Your task to perform on an android device: set the timer Image 0: 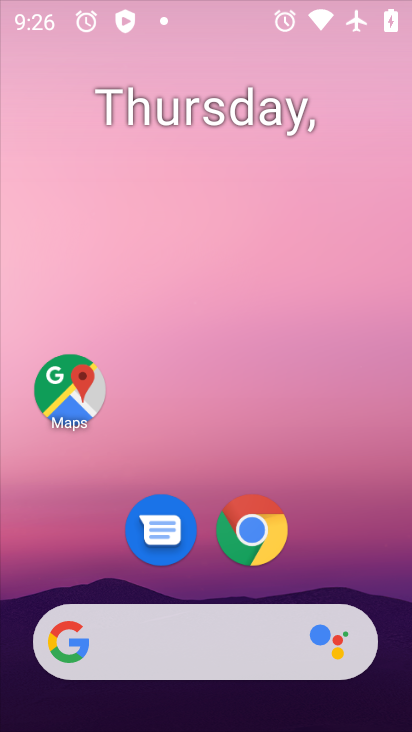
Step 0: drag from (319, 568) to (259, 47)
Your task to perform on an android device: set the timer Image 1: 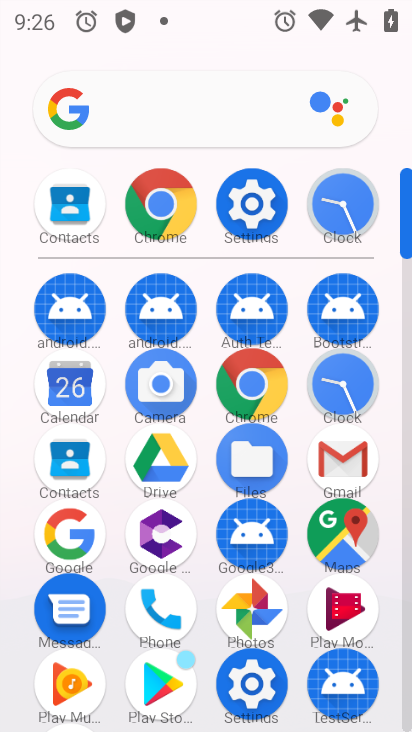
Step 1: drag from (16, 590) to (16, 275)
Your task to perform on an android device: set the timer Image 2: 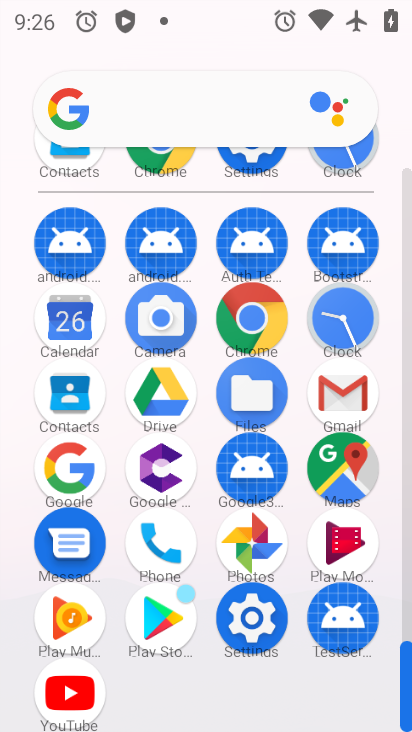
Step 2: click (344, 316)
Your task to perform on an android device: set the timer Image 3: 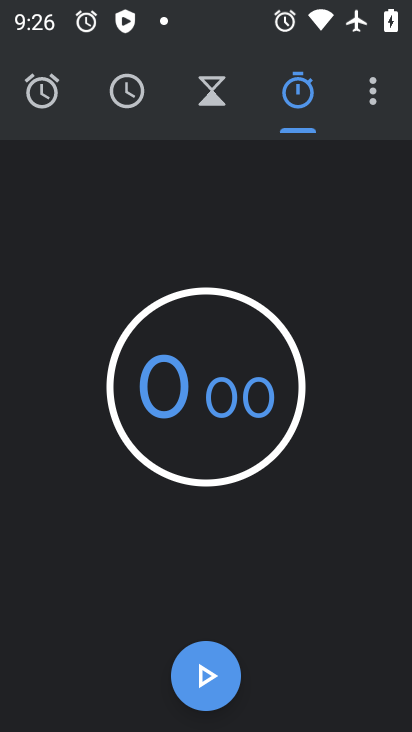
Step 3: click (58, 88)
Your task to perform on an android device: set the timer Image 4: 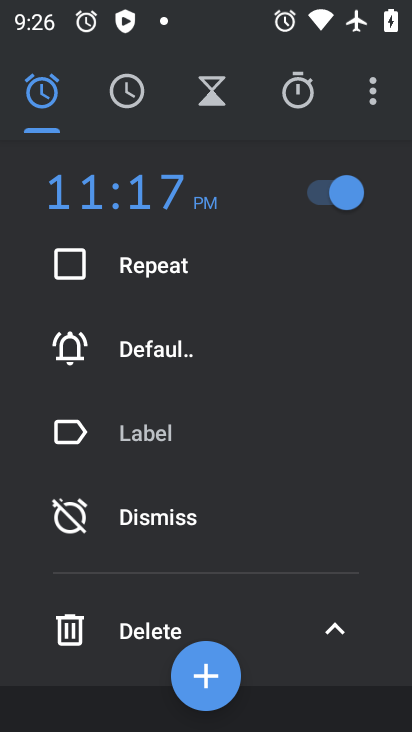
Step 4: click (215, 98)
Your task to perform on an android device: set the timer Image 5: 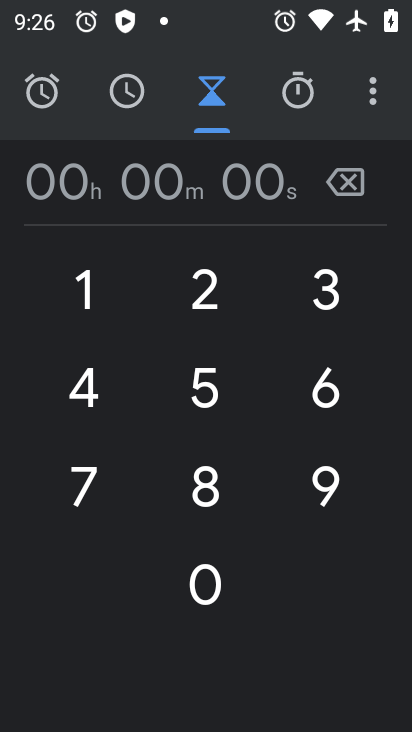
Step 5: click (209, 275)
Your task to perform on an android device: set the timer Image 6: 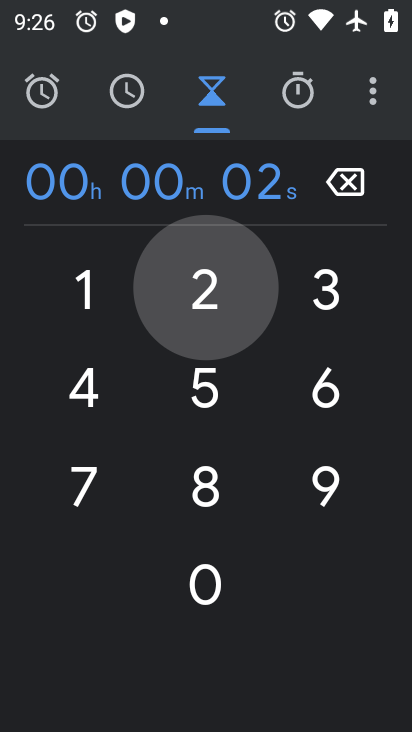
Step 6: click (198, 407)
Your task to perform on an android device: set the timer Image 7: 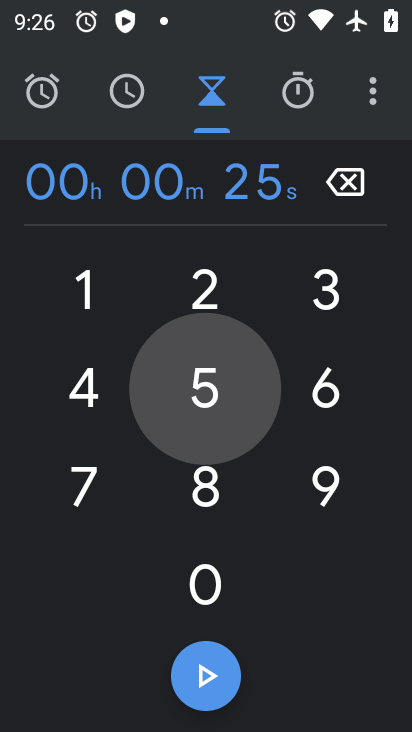
Step 7: click (198, 481)
Your task to perform on an android device: set the timer Image 8: 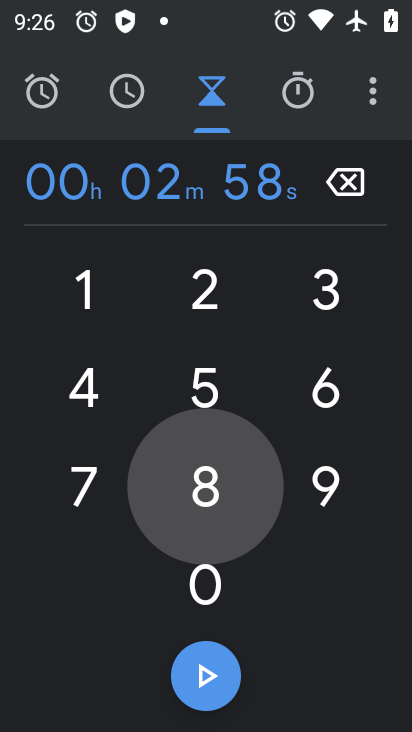
Step 8: click (348, 495)
Your task to perform on an android device: set the timer Image 9: 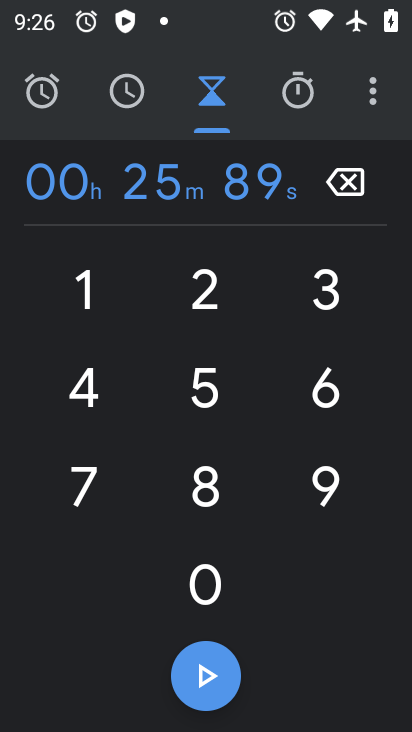
Step 9: click (216, 677)
Your task to perform on an android device: set the timer Image 10: 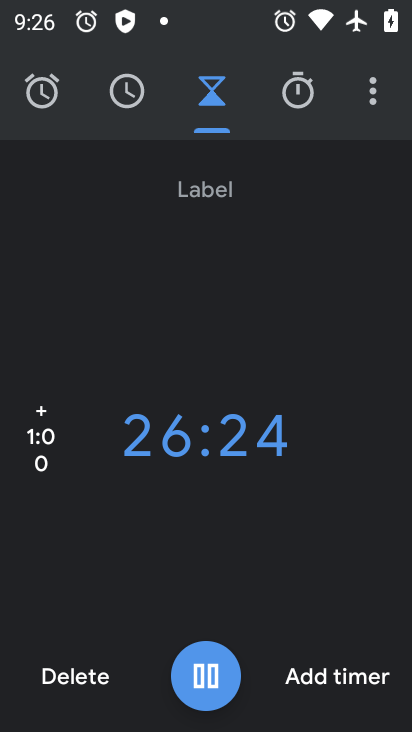
Step 10: task complete